Your task to perform on an android device: check data usage Image 0: 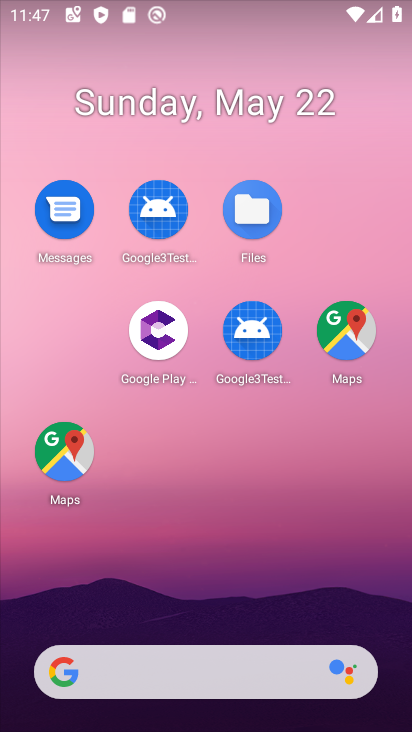
Step 0: drag from (203, 614) to (260, 6)
Your task to perform on an android device: check data usage Image 1: 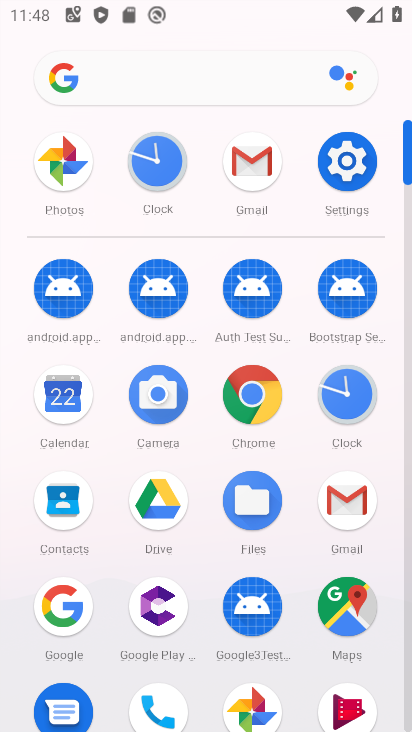
Step 1: click (342, 160)
Your task to perform on an android device: check data usage Image 2: 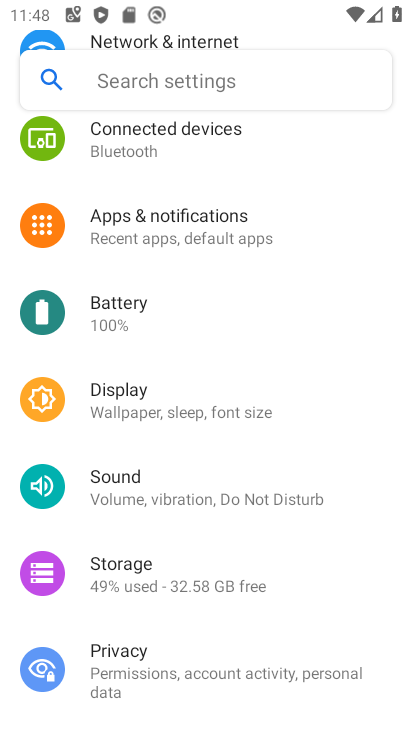
Step 2: drag from (224, 243) to (235, 651)
Your task to perform on an android device: check data usage Image 3: 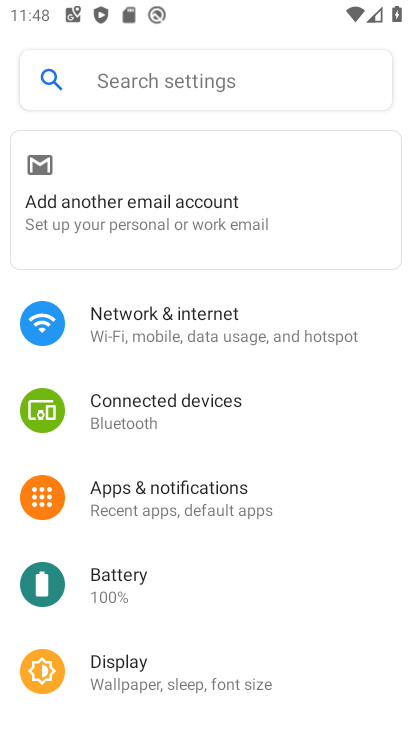
Step 3: click (149, 319)
Your task to perform on an android device: check data usage Image 4: 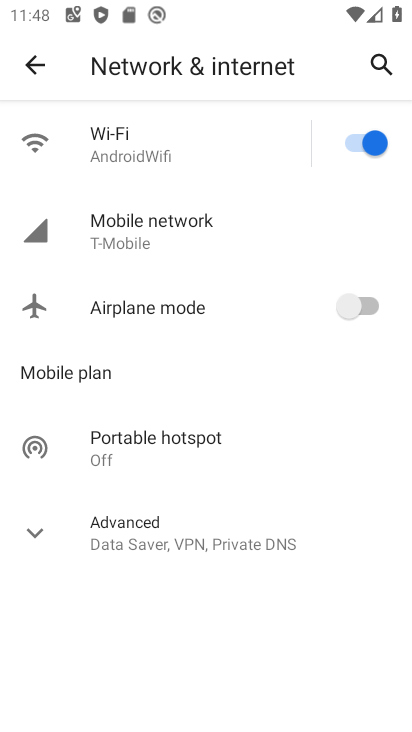
Step 4: click (148, 229)
Your task to perform on an android device: check data usage Image 5: 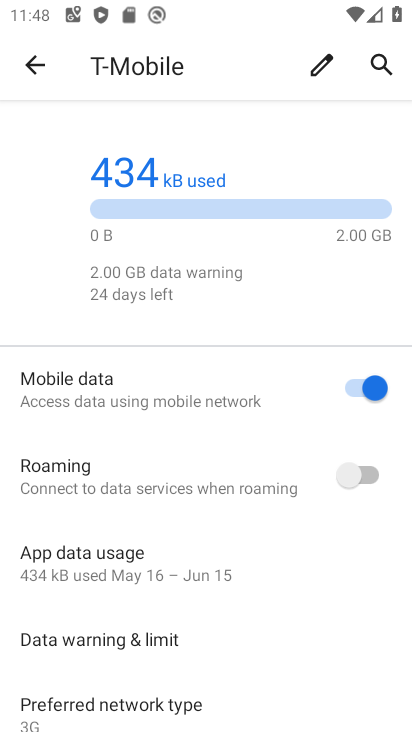
Step 5: task complete